Your task to perform on an android device: Open Google Image 0: 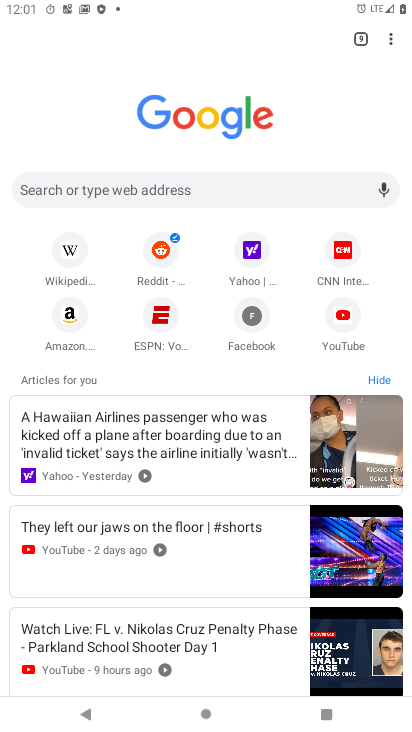
Step 0: task complete